Your task to perform on an android device: make emails show in primary in the gmail app Image 0: 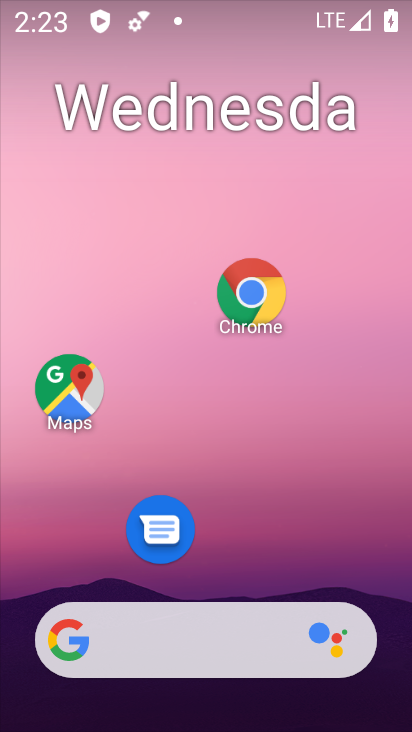
Step 0: drag from (293, 450) to (280, 7)
Your task to perform on an android device: make emails show in primary in the gmail app Image 1: 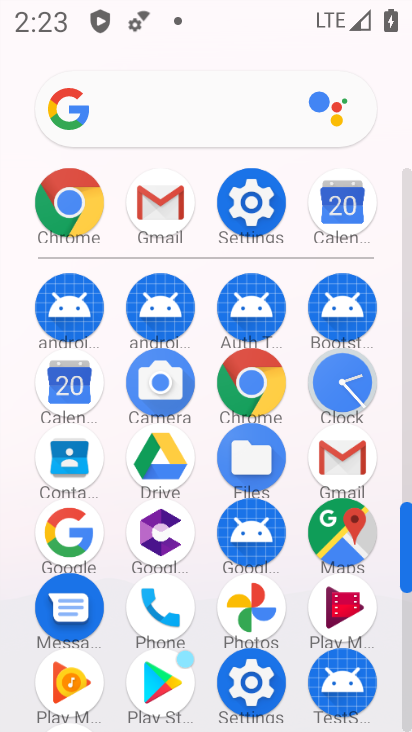
Step 1: click (363, 459)
Your task to perform on an android device: make emails show in primary in the gmail app Image 2: 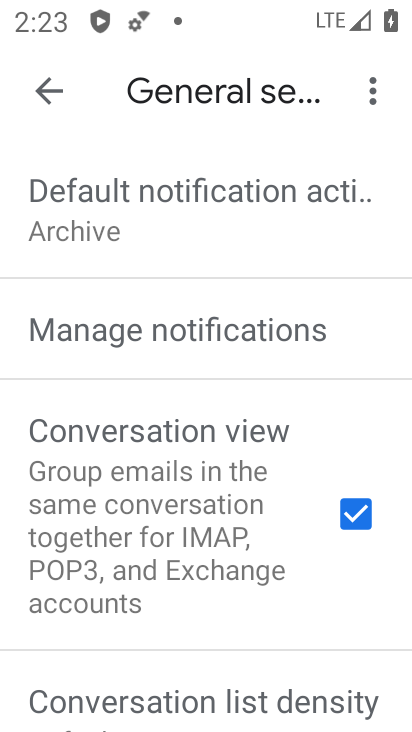
Step 2: task complete